Your task to perform on an android device: Open the calendar and show me this week's events? Image 0: 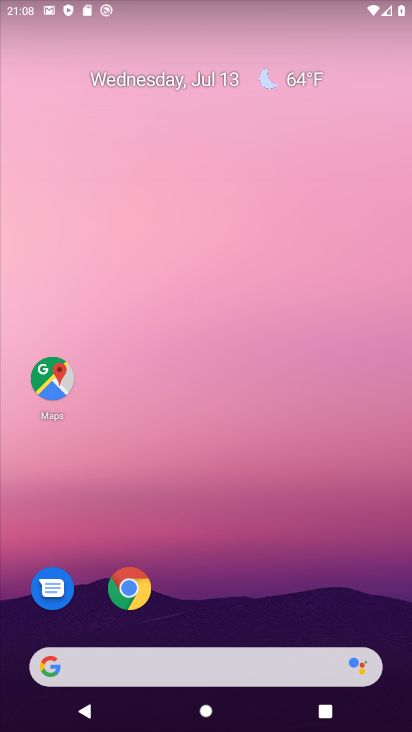
Step 0: drag from (274, 599) to (318, 5)
Your task to perform on an android device: Open the calendar and show me this week's events? Image 1: 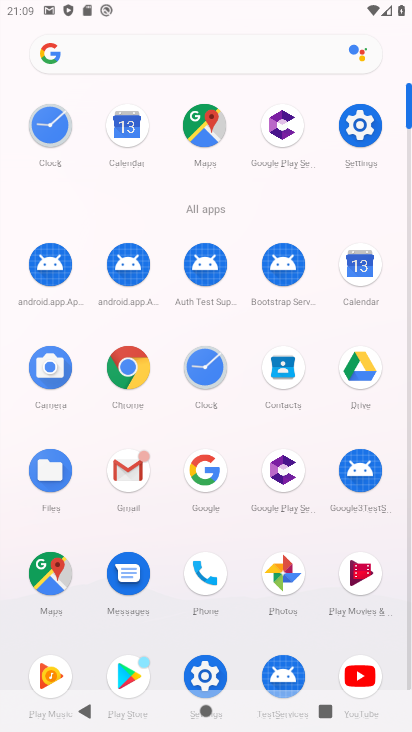
Step 1: click (360, 271)
Your task to perform on an android device: Open the calendar and show me this week's events? Image 2: 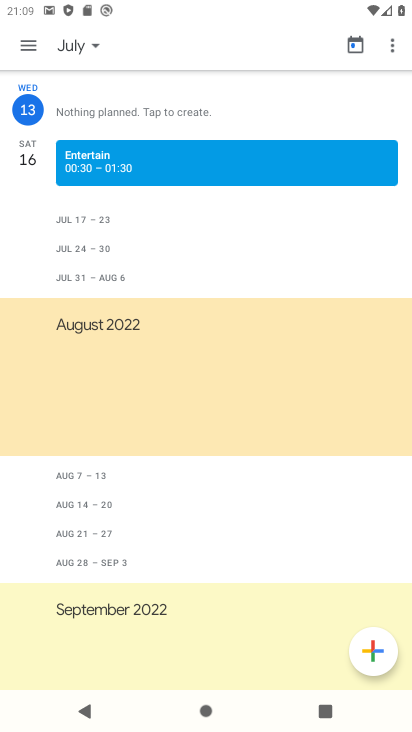
Step 2: task complete